Your task to perform on an android device: When is my next appointment? Image 0: 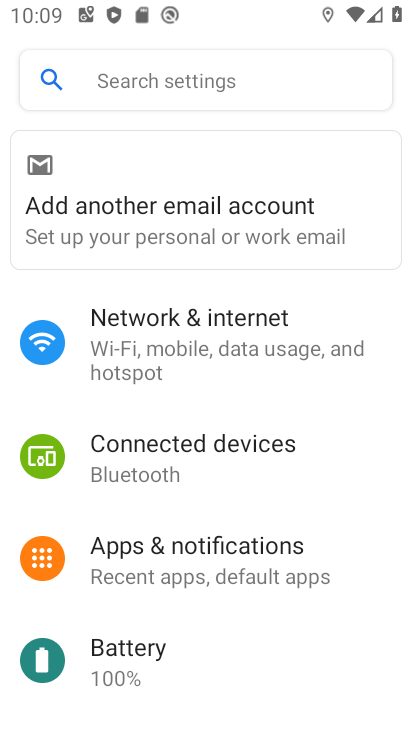
Step 0: press home button
Your task to perform on an android device: When is my next appointment? Image 1: 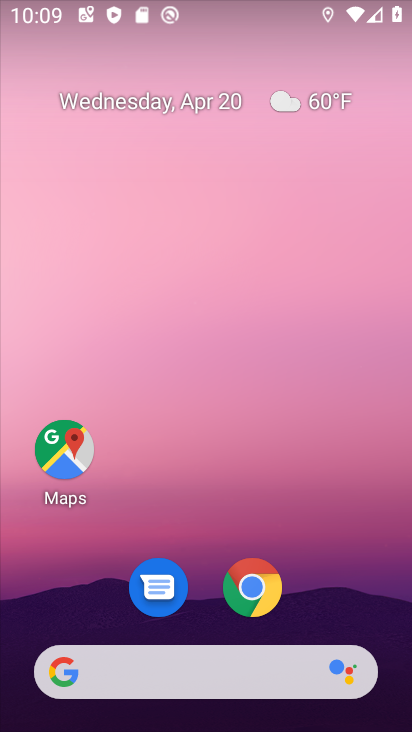
Step 1: drag from (302, 600) to (266, 139)
Your task to perform on an android device: When is my next appointment? Image 2: 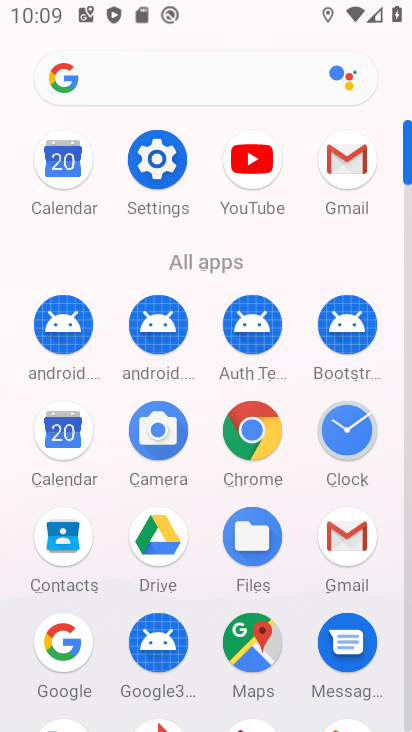
Step 2: click (72, 451)
Your task to perform on an android device: When is my next appointment? Image 3: 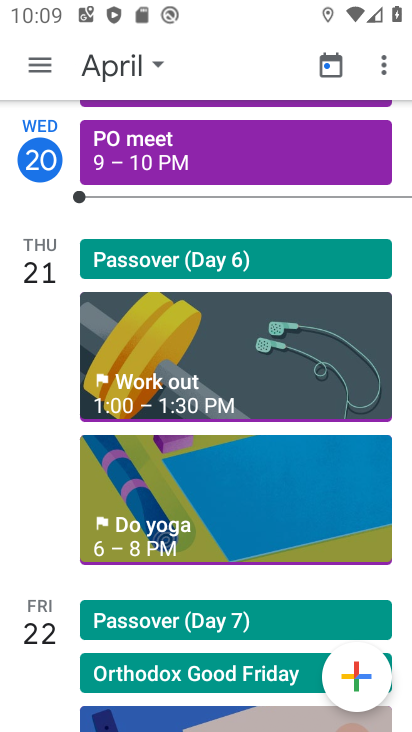
Step 3: click (161, 363)
Your task to perform on an android device: When is my next appointment? Image 4: 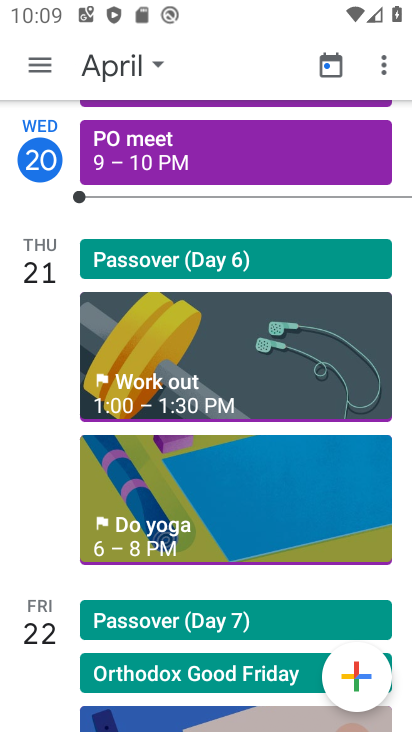
Step 4: click (161, 363)
Your task to perform on an android device: When is my next appointment? Image 5: 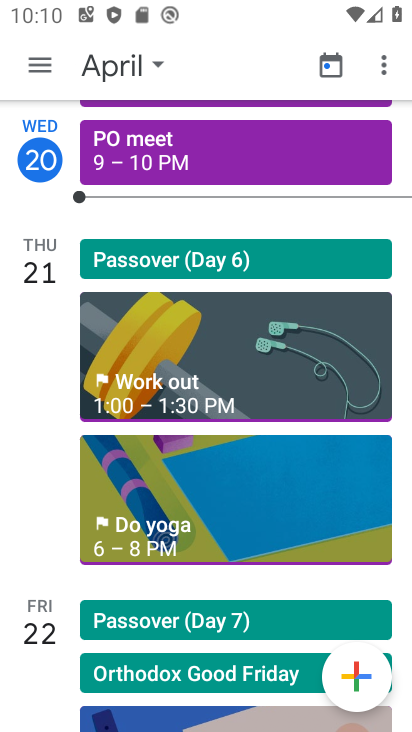
Step 5: task complete